Your task to perform on an android device: Check the news Image 0: 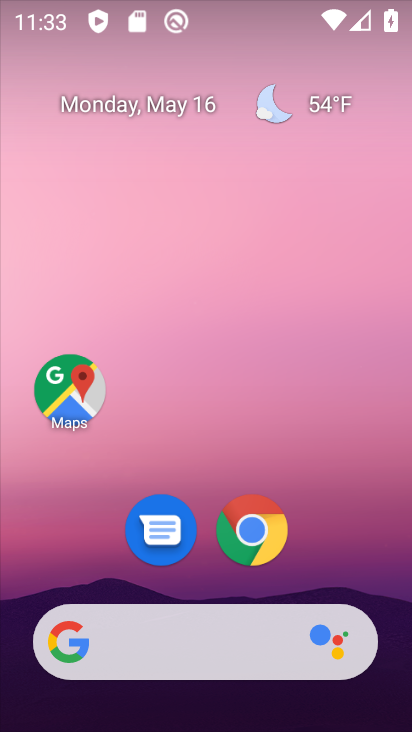
Step 0: drag from (0, 213) to (408, 375)
Your task to perform on an android device: Check the news Image 1: 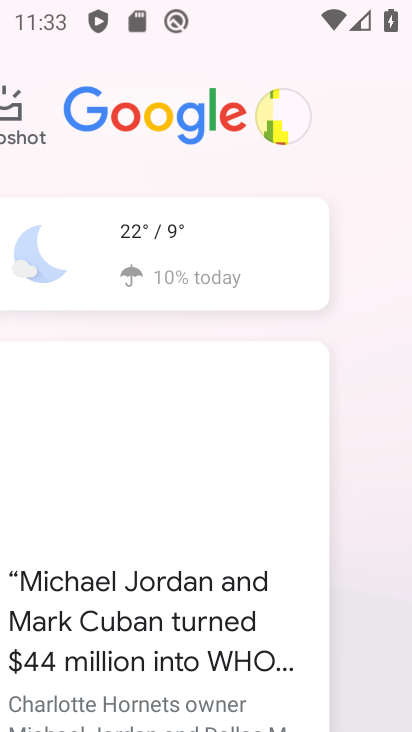
Step 1: task complete